Your task to perform on an android device: turn on improve location accuracy Image 0: 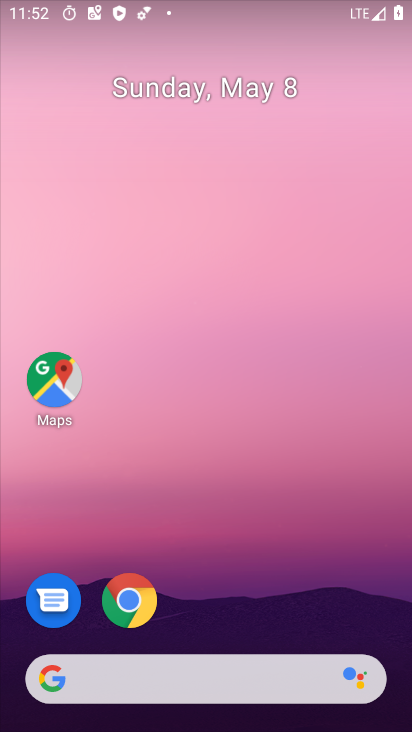
Step 0: drag from (239, 620) to (221, 278)
Your task to perform on an android device: turn on improve location accuracy Image 1: 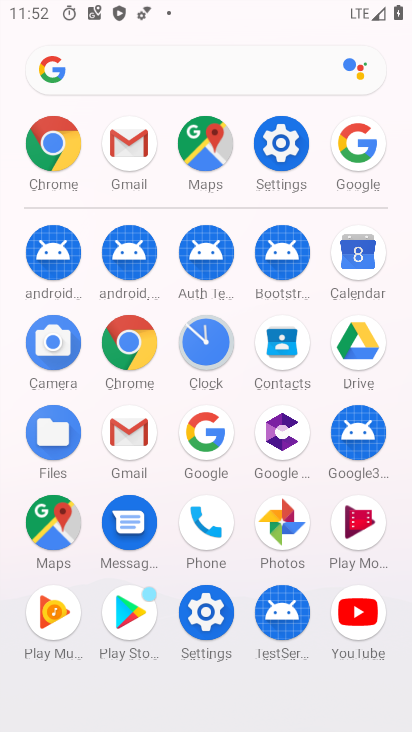
Step 1: click (286, 157)
Your task to perform on an android device: turn on improve location accuracy Image 2: 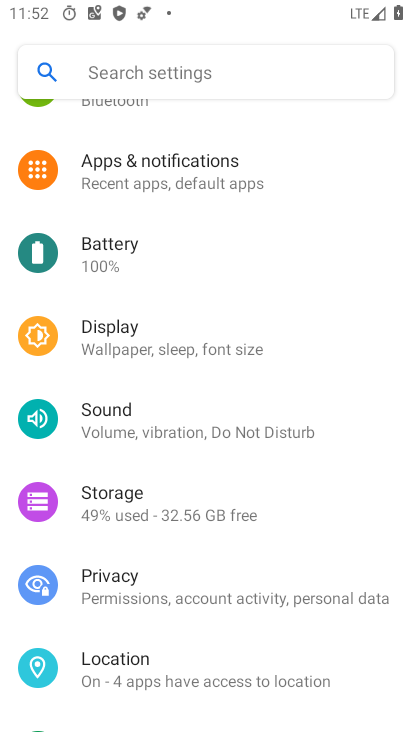
Step 2: click (166, 681)
Your task to perform on an android device: turn on improve location accuracy Image 3: 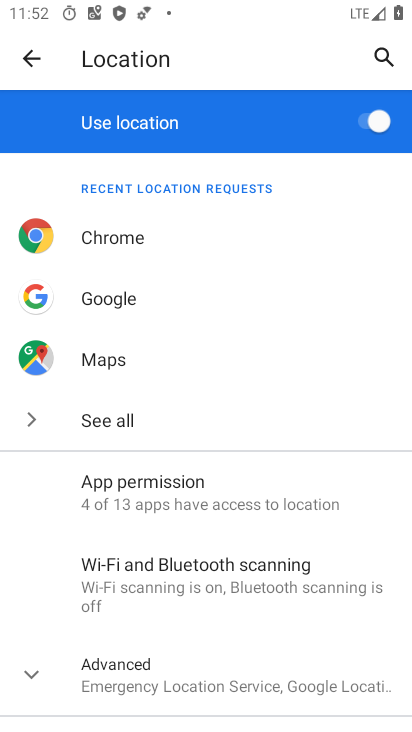
Step 3: click (205, 664)
Your task to perform on an android device: turn on improve location accuracy Image 4: 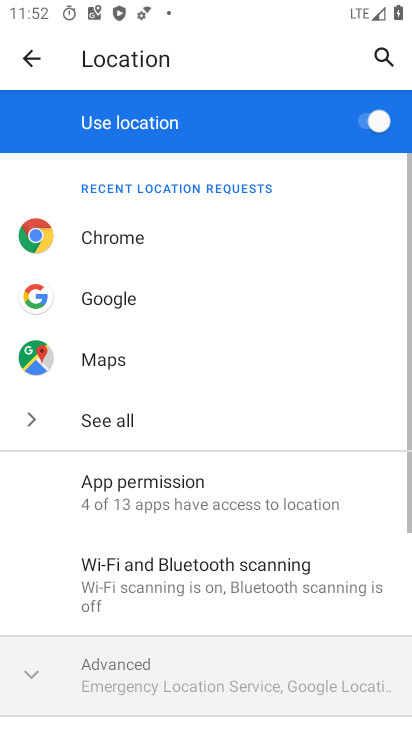
Step 4: drag from (205, 664) to (236, 338)
Your task to perform on an android device: turn on improve location accuracy Image 5: 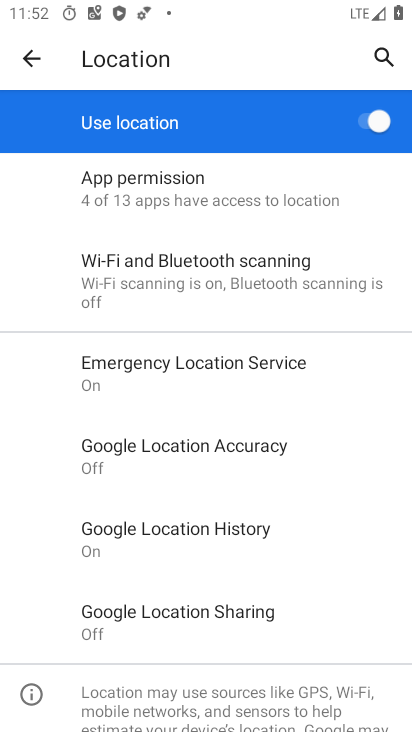
Step 5: click (231, 450)
Your task to perform on an android device: turn on improve location accuracy Image 6: 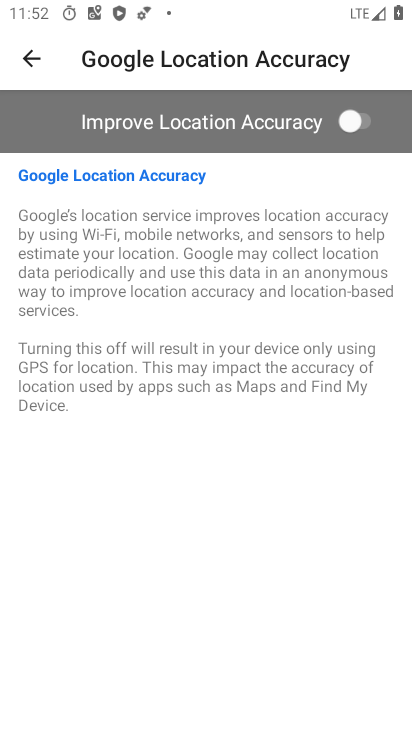
Step 6: click (336, 132)
Your task to perform on an android device: turn on improve location accuracy Image 7: 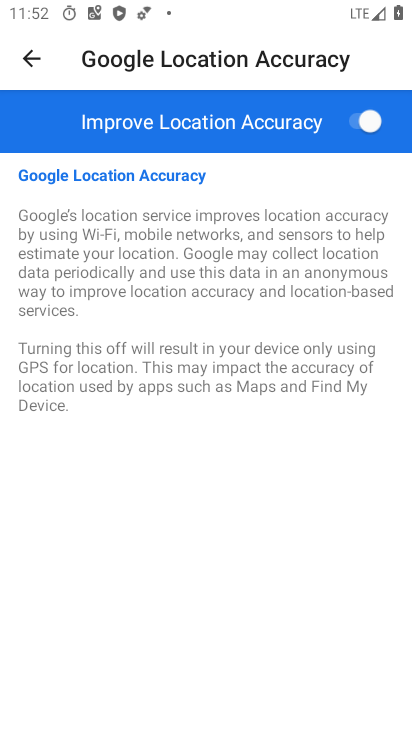
Step 7: task complete